Your task to perform on an android device: Open CNN.com Image 0: 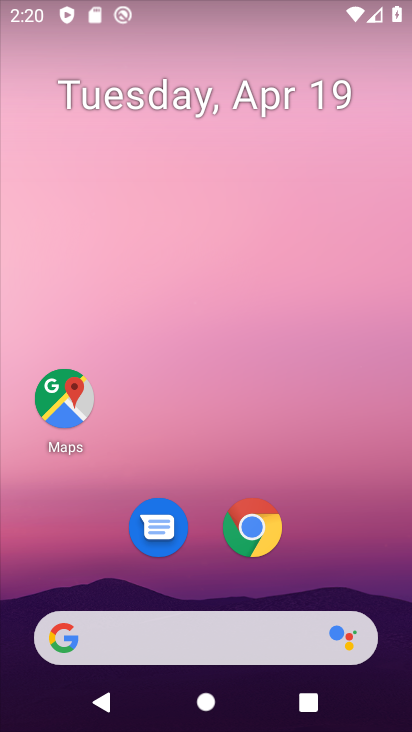
Step 0: click (215, 637)
Your task to perform on an android device: Open CNN.com Image 1: 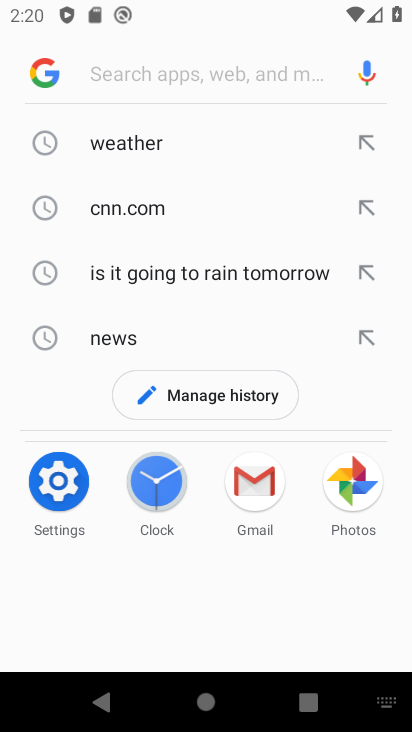
Step 1: click (215, 637)
Your task to perform on an android device: Open CNN.com Image 2: 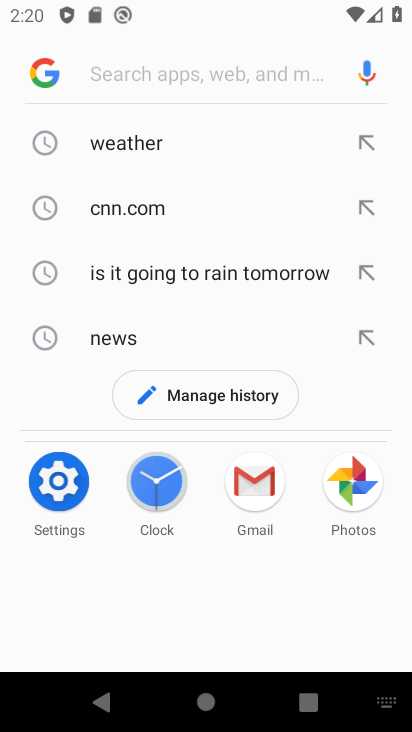
Step 2: click (134, 218)
Your task to perform on an android device: Open CNN.com Image 3: 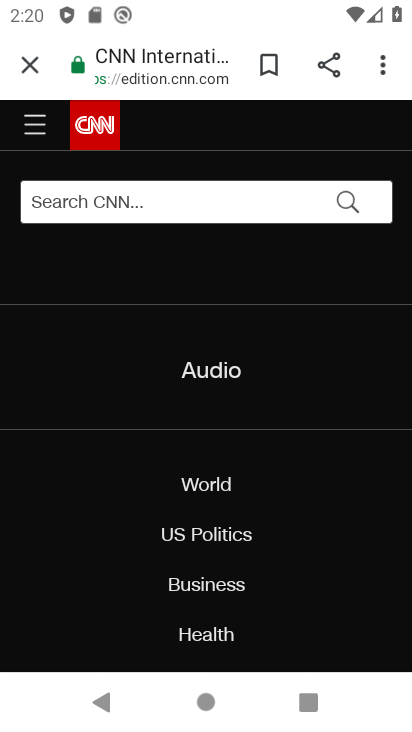
Step 3: task complete